Your task to perform on an android device: delete a single message in the gmail app Image 0: 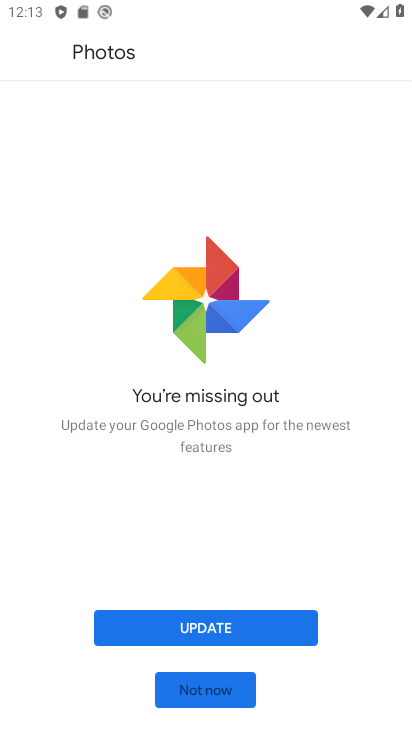
Step 0: press home button
Your task to perform on an android device: delete a single message in the gmail app Image 1: 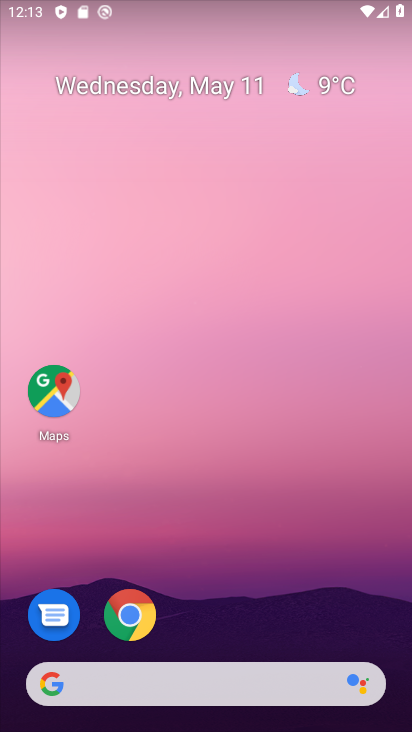
Step 1: drag from (288, 524) to (282, 48)
Your task to perform on an android device: delete a single message in the gmail app Image 2: 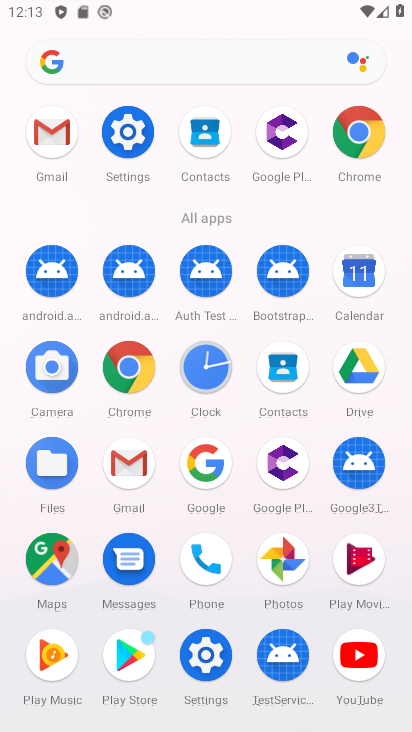
Step 2: click (149, 493)
Your task to perform on an android device: delete a single message in the gmail app Image 3: 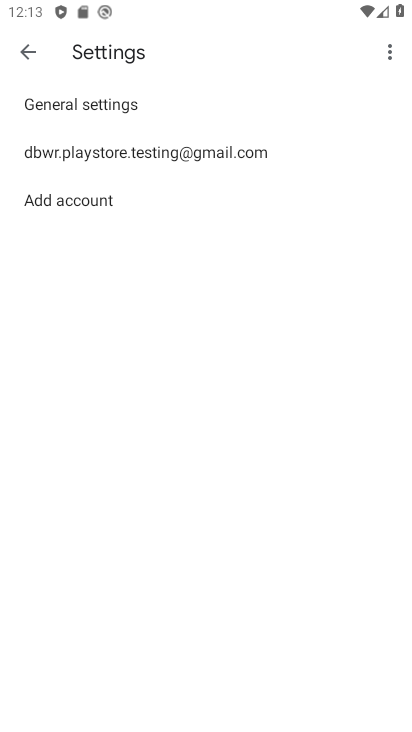
Step 3: click (22, 57)
Your task to perform on an android device: delete a single message in the gmail app Image 4: 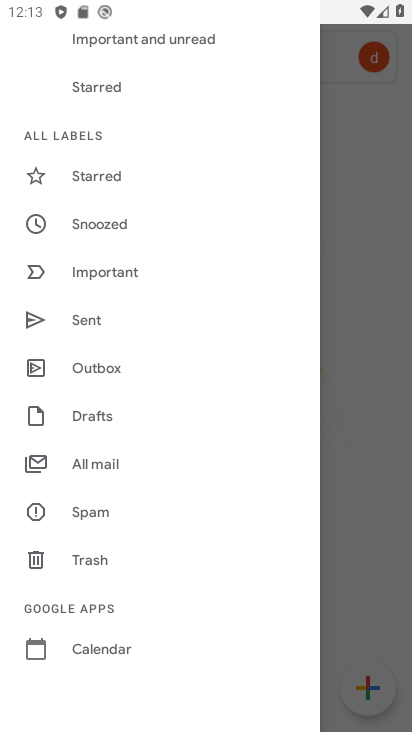
Step 4: click (123, 460)
Your task to perform on an android device: delete a single message in the gmail app Image 5: 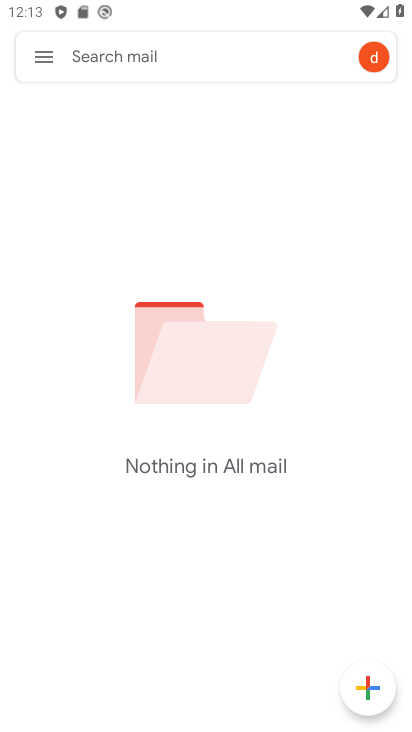
Step 5: task complete